Your task to perform on an android device: star an email in the gmail app Image 0: 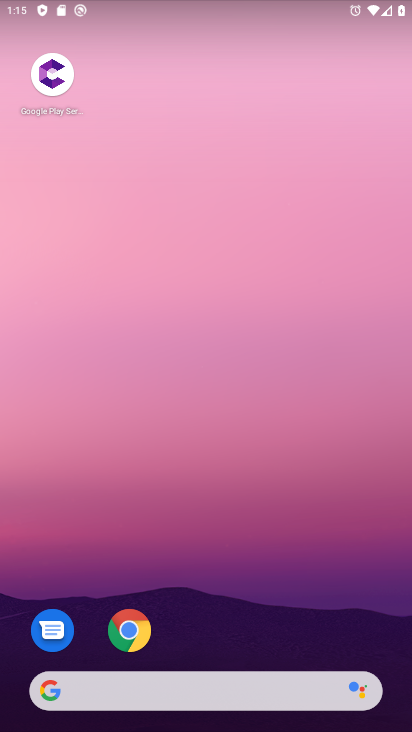
Step 0: drag from (64, 531) to (206, 217)
Your task to perform on an android device: star an email in the gmail app Image 1: 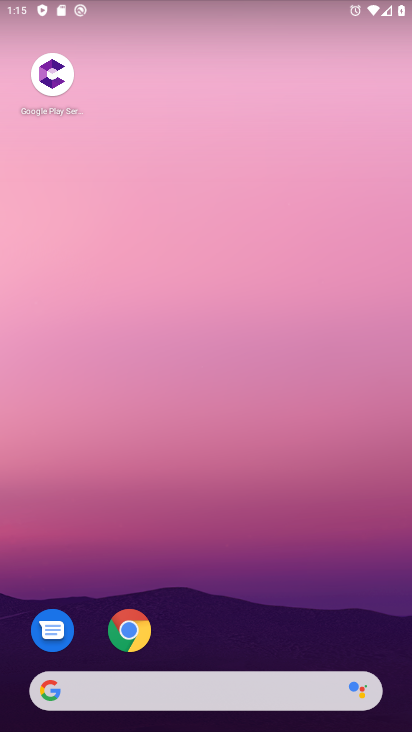
Step 1: drag from (4, 656) to (279, 116)
Your task to perform on an android device: star an email in the gmail app Image 2: 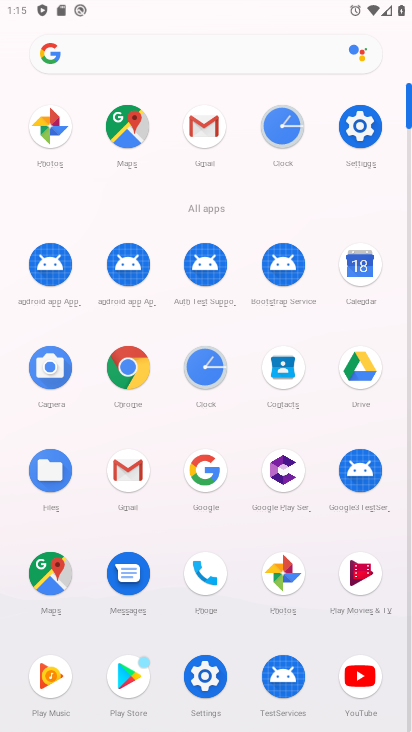
Step 2: click (192, 127)
Your task to perform on an android device: star an email in the gmail app Image 3: 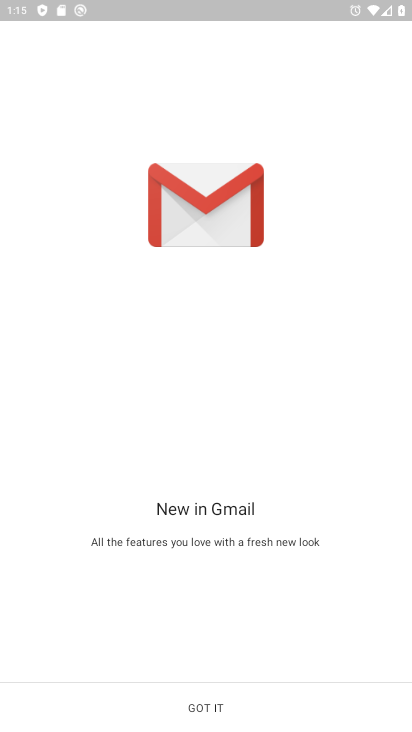
Step 3: click (243, 708)
Your task to perform on an android device: star an email in the gmail app Image 4: 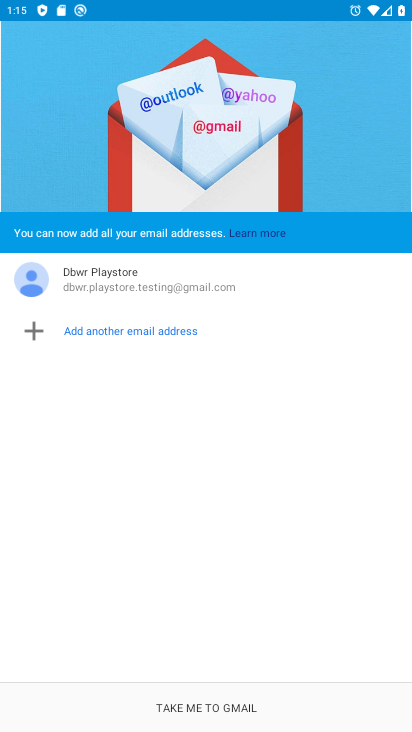
Step 4: click (227, 712)
Your task to perform on an android device: star an email in the gmail app Image 5: 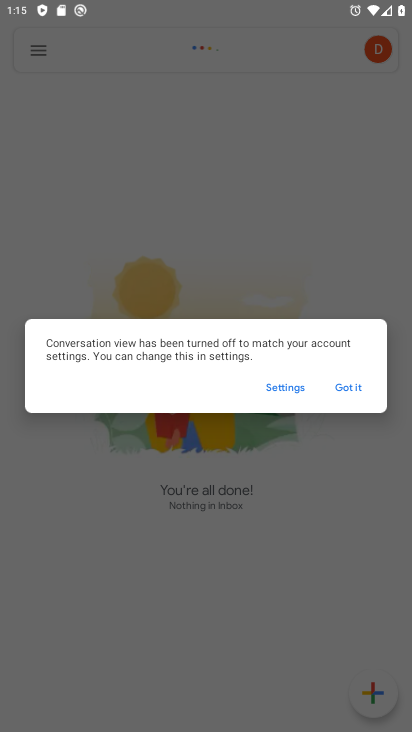
Step 5: click (348, 385)
Your task to perform on an android device: star an email in the gmail app Image 6: 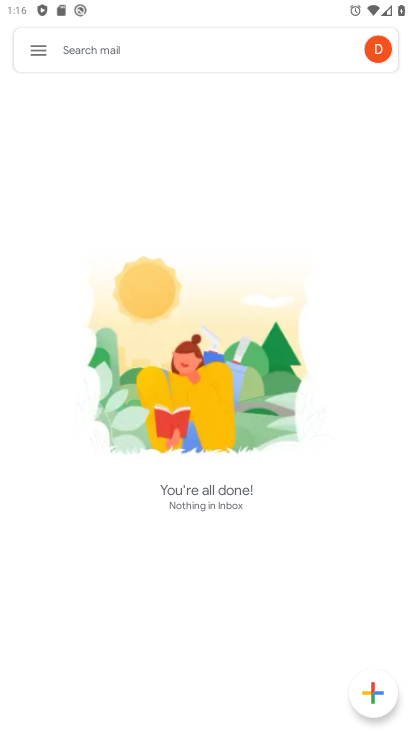
Step 6: click (47, 50)
Your task to perform on an android device: star an email in the gmail app Image 7: 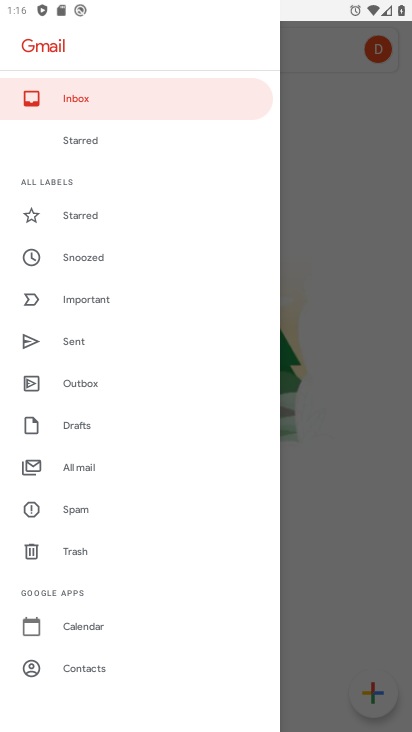
Step 7: click (87, 484)
Your task to perform on an android device: star an email in the gmail app Image 8: 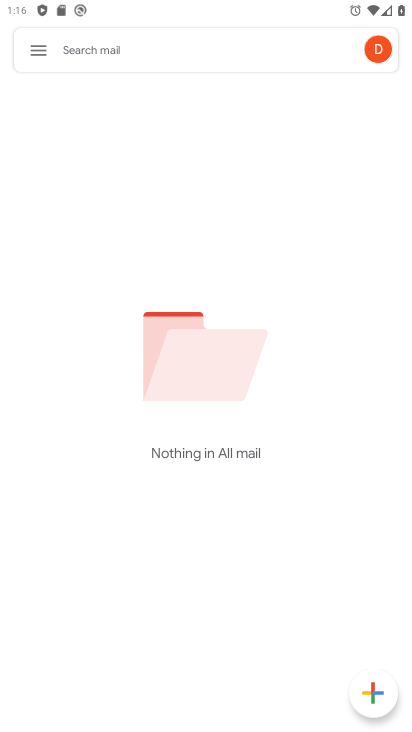
Step 8: task complete